Your task to perform on an android device: open app "Adobe Acrobat Reader: Edit PDF" Image 0: 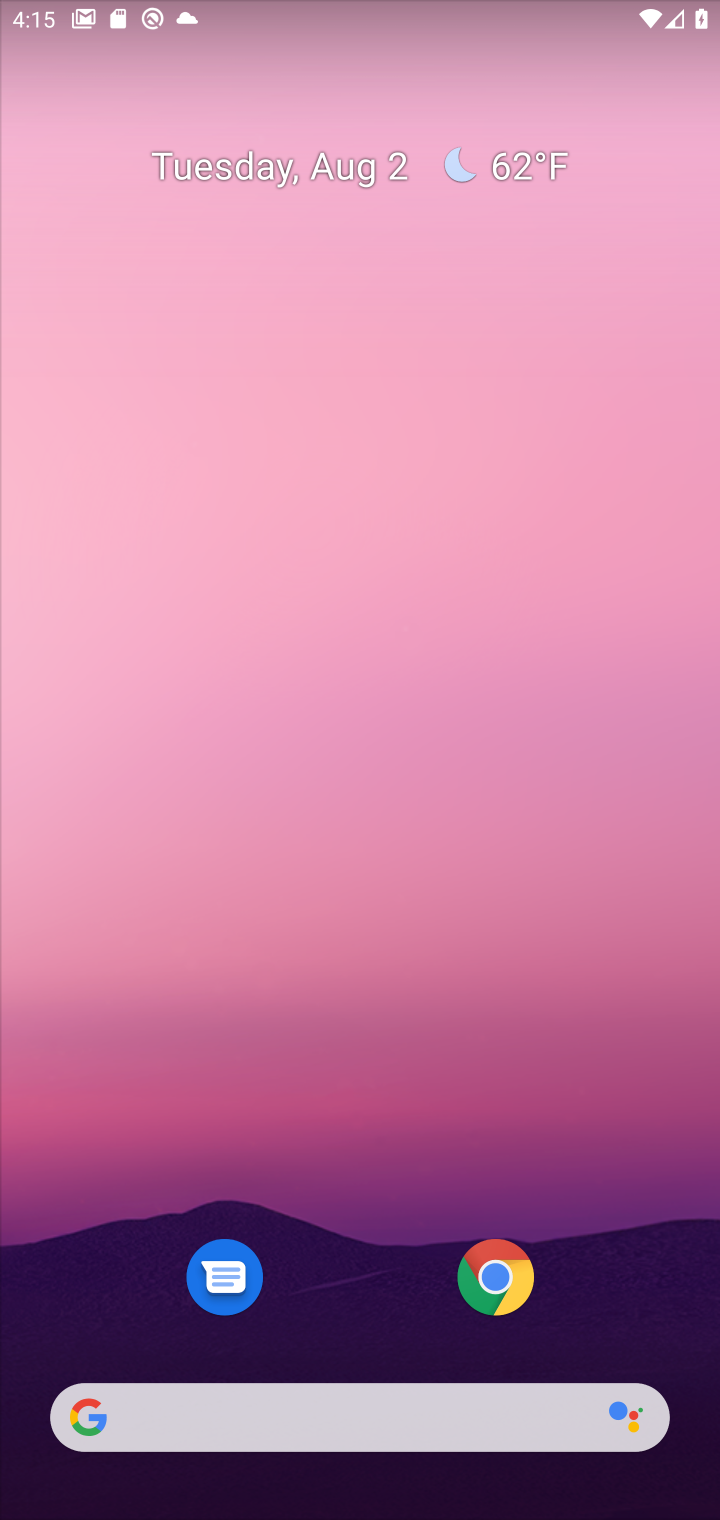
Step 0: drag from (651, 1221) to (719, 766)
Your task to perform on an android device: open app "Adobe Acrobat Reader: Edit PDF" Image 1: 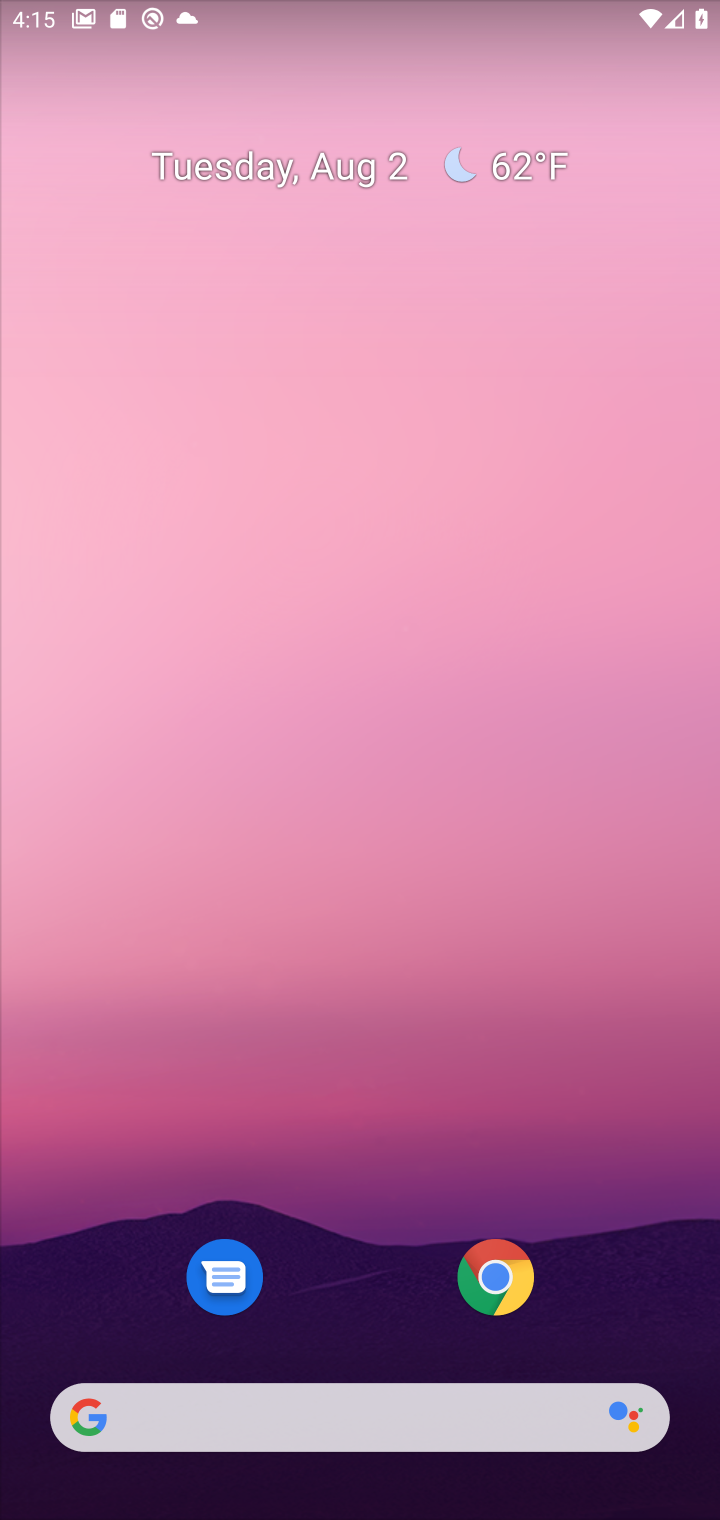
Step 1: drag from (652, 1243) to (609, 72)
Your task to perform on an android device: open app "Adobe Acrobat Reader: Edit PDF" Image 2: 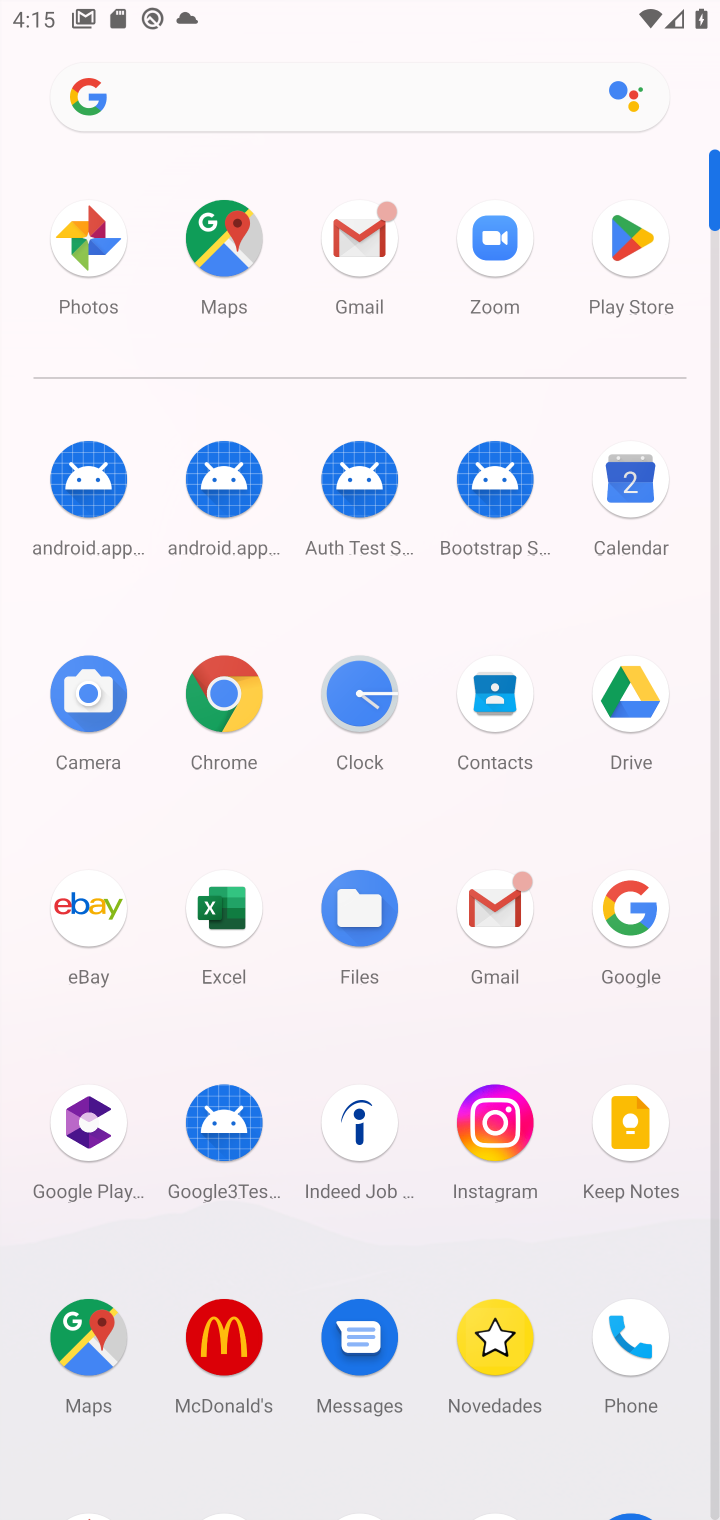
Step 2: drag from (432, 999) to (445, 261)
Your task to perform on an android device: open app "Adobe Acrobat Reader: Edit PDF" Image 3: 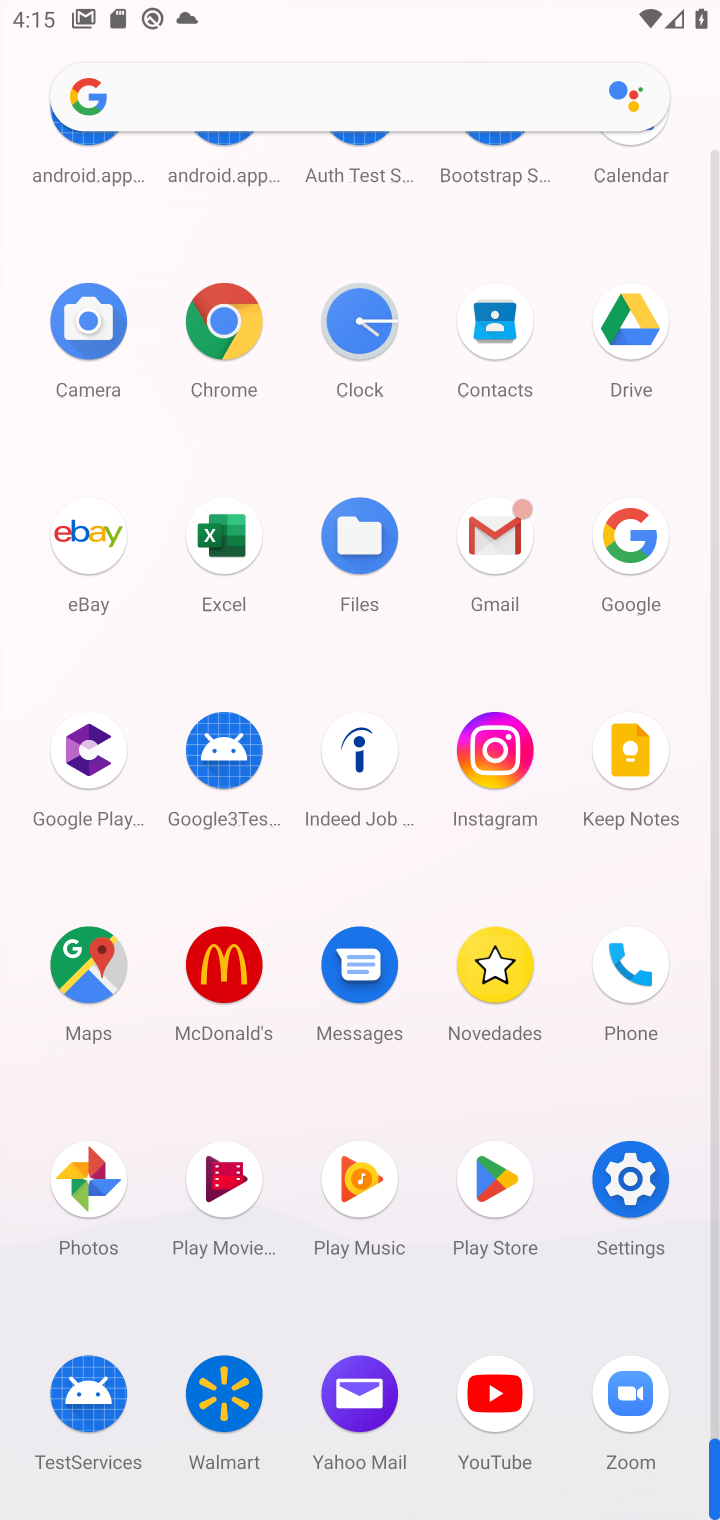
Step 3: click (505, 1169)
Your task to perform on an android device: open app "Adobe Acrobat Reader: Edit PDF" Image 4: 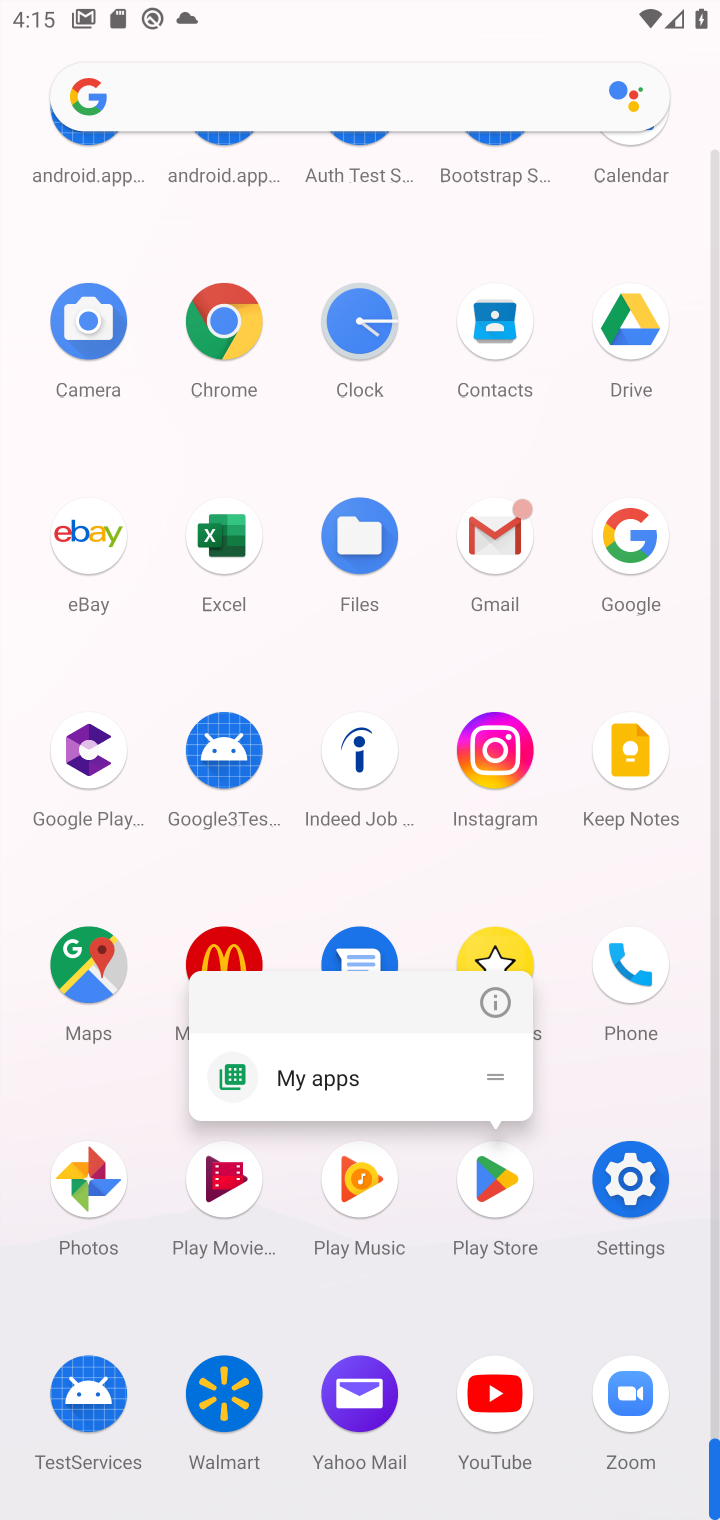
Step 4: click (501, 1189)
Your task to perform on an android device: open app "Adobe Acrobat Reader: Edit PDF" Image 5: 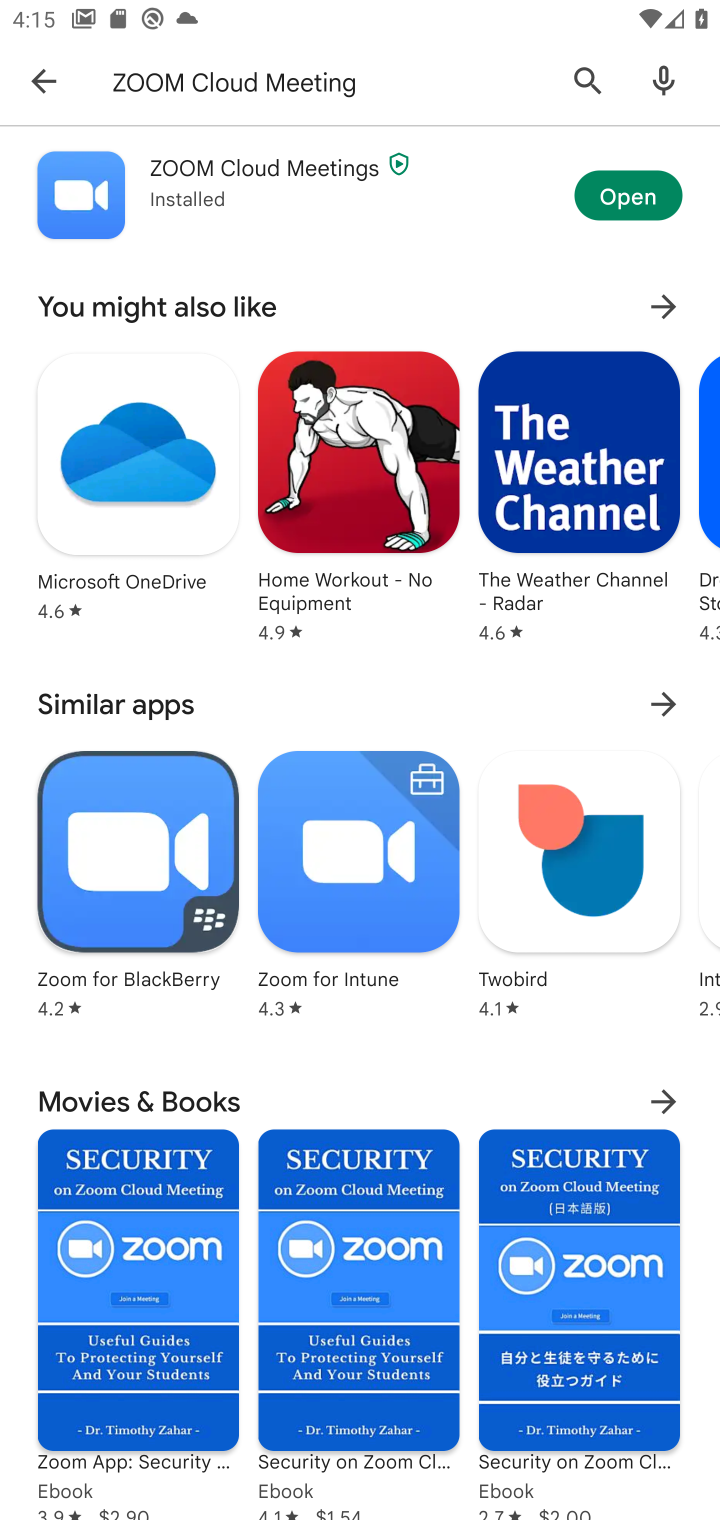
Step 5: click (196, 80)
Your task to perform on an android device: open app "Adobe Acrobat Reader: Edit PDF" Image 6: 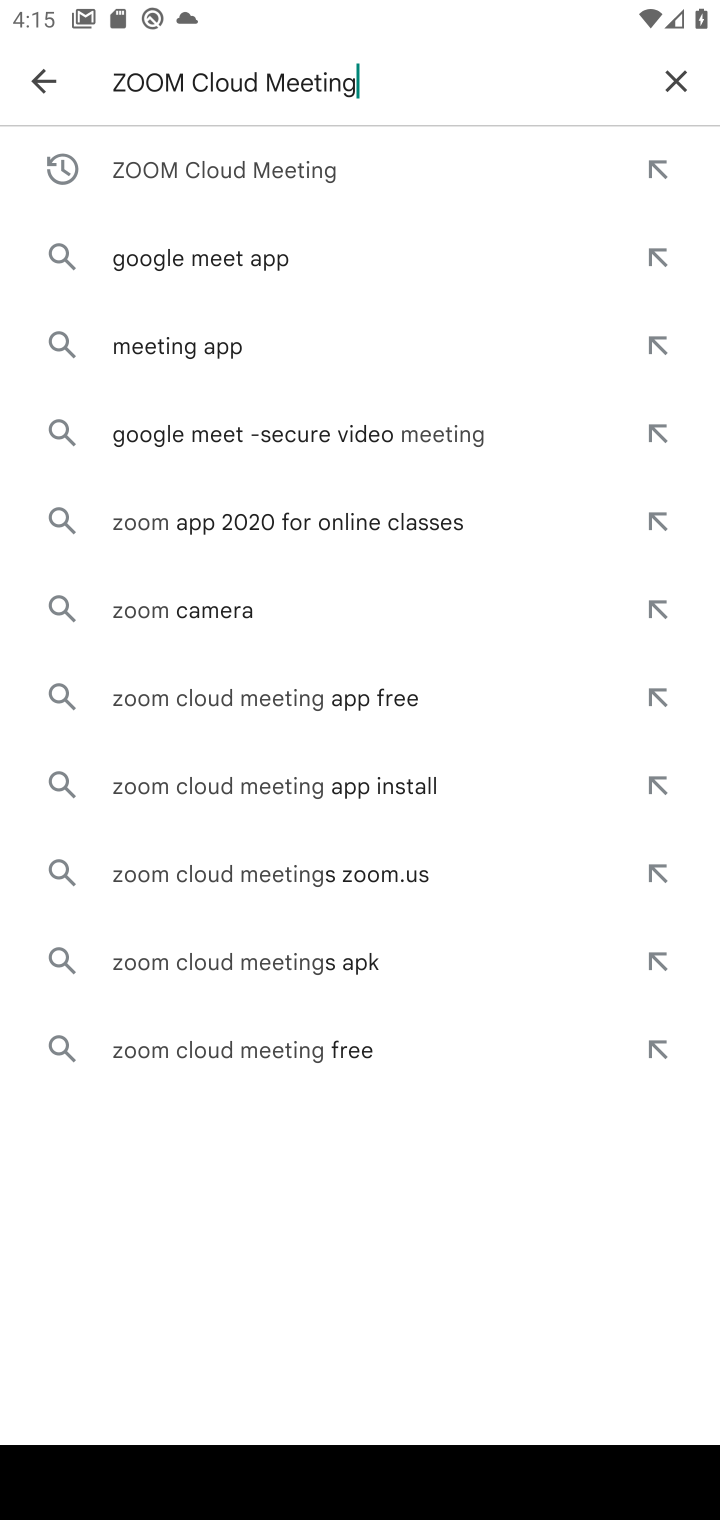
Step 6: click (669, 88)
Your task to perform on an android device: open app "Adobe Acrobat Reader: Edit PDF" Image 7: 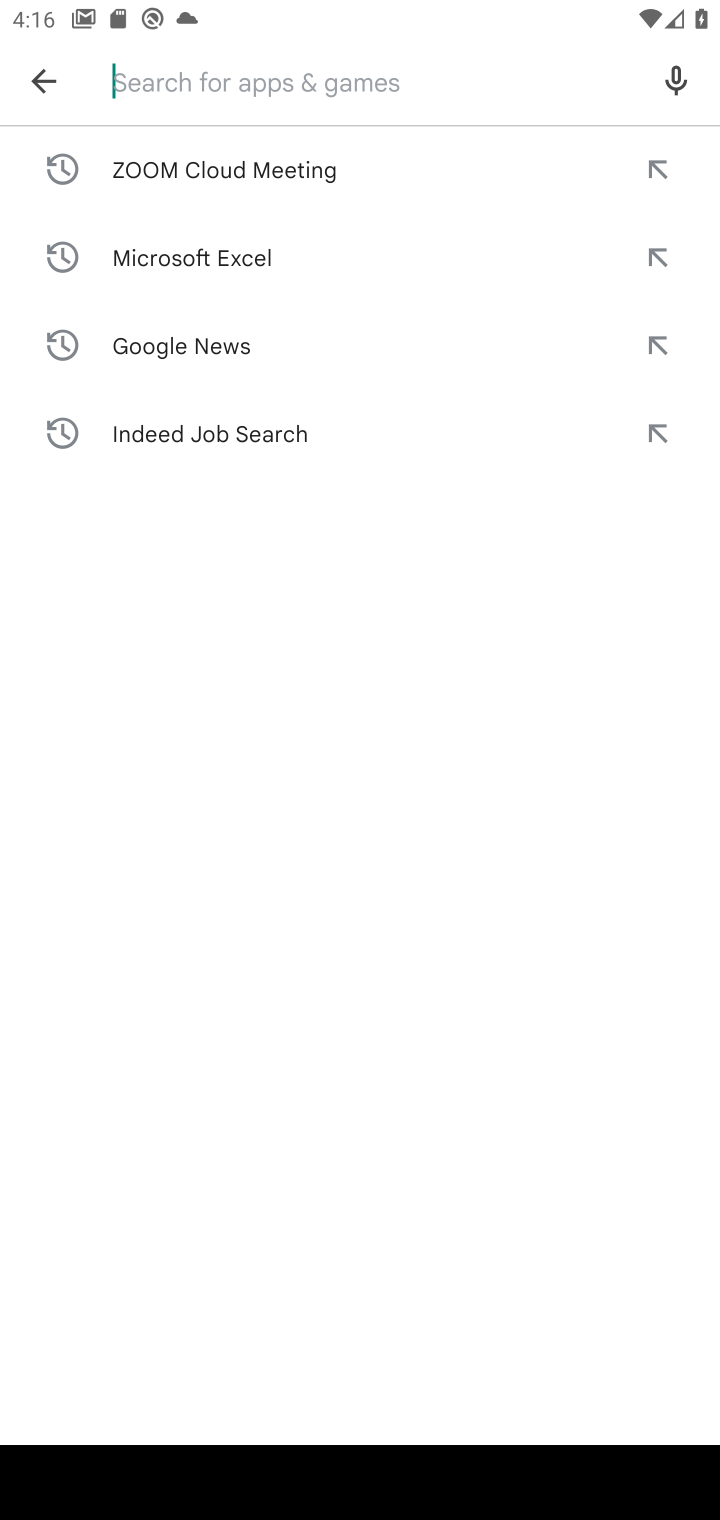
Step 7: type "Adobe Acrobat Reader: Edit PDF"
Your task to perform on an android device: open app "Adobe Acrobat Reader: Edit PDF" Image 8: 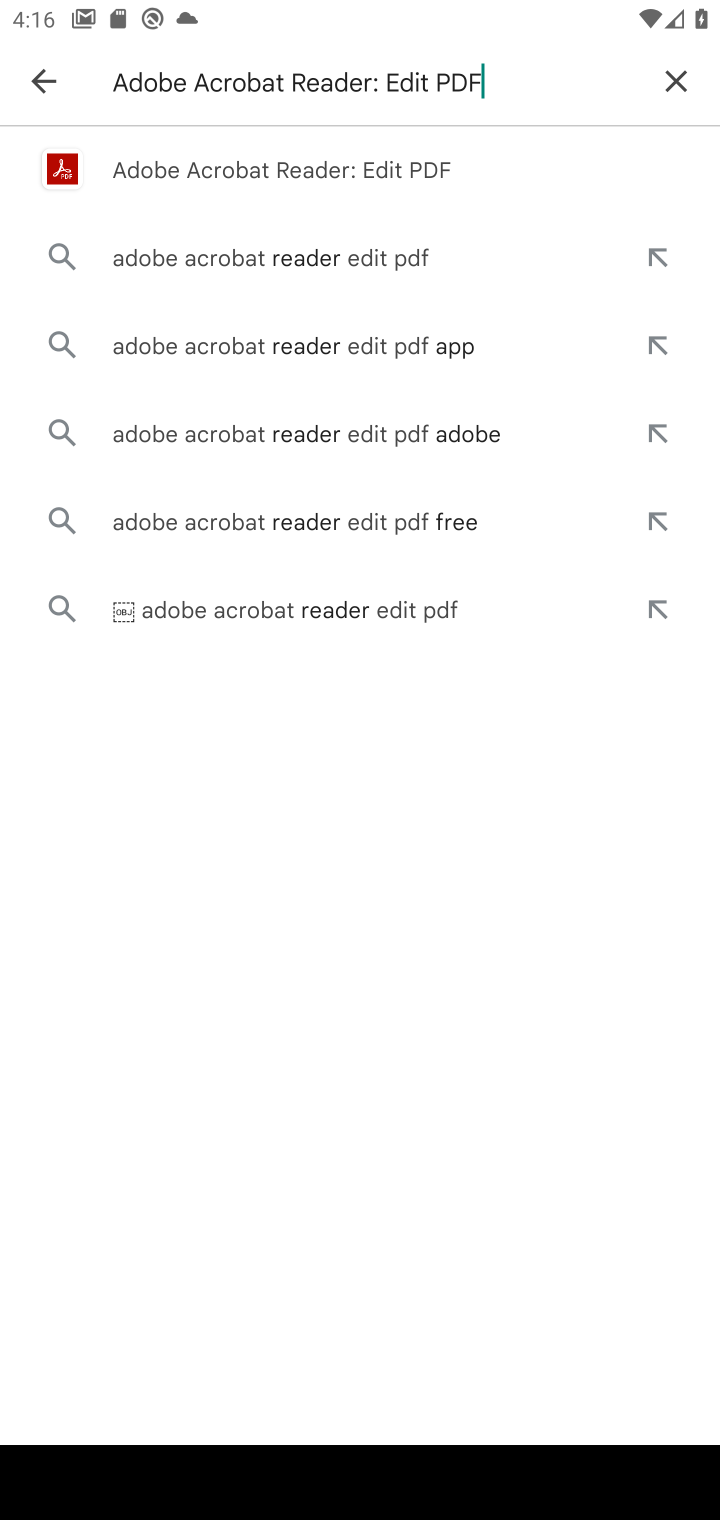
Step 8: click (384, 155)
Your task to perform on an android device: open app "Adobe Acrobat Reader: Edit PDF" Image 9: 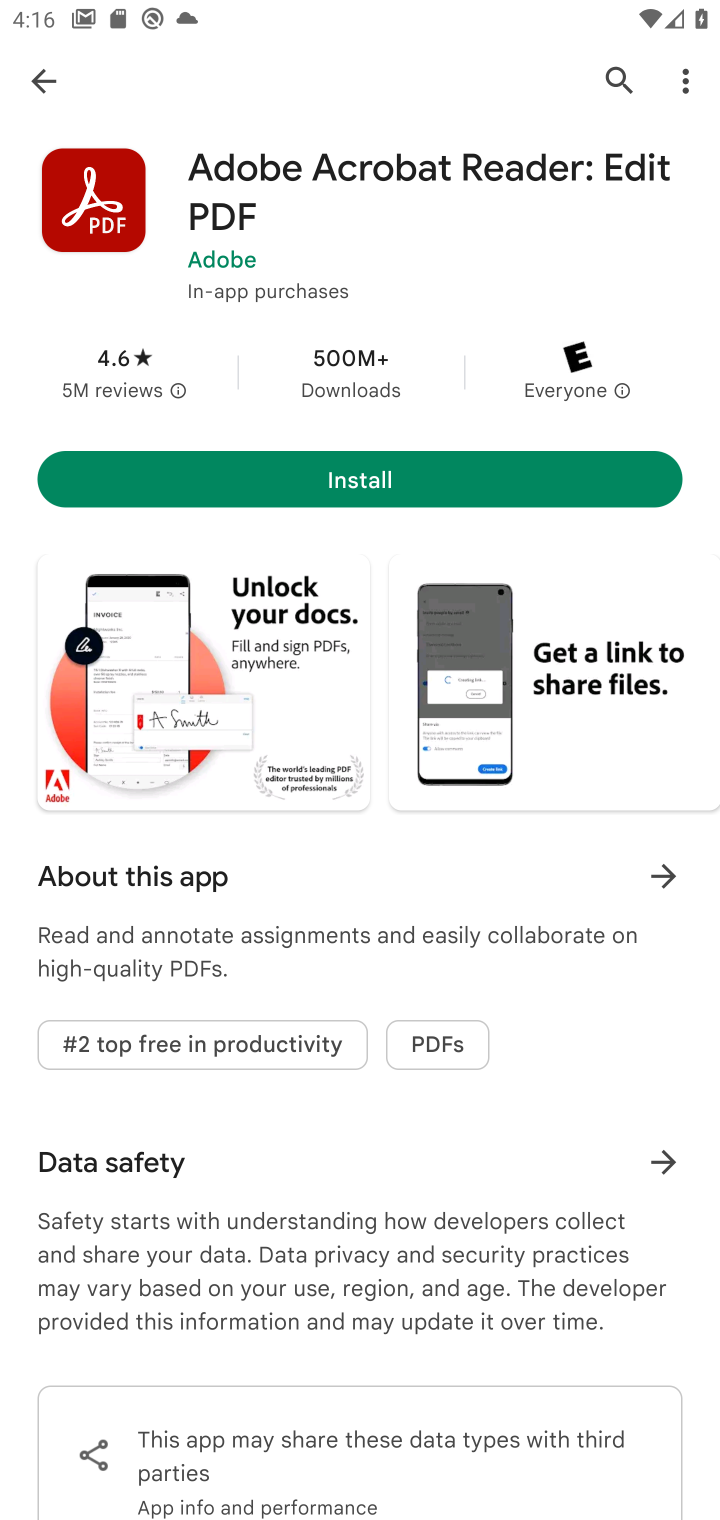
Step 9: task complete